Your task to perform on an android device: Open settings on Google Maps Image 0: 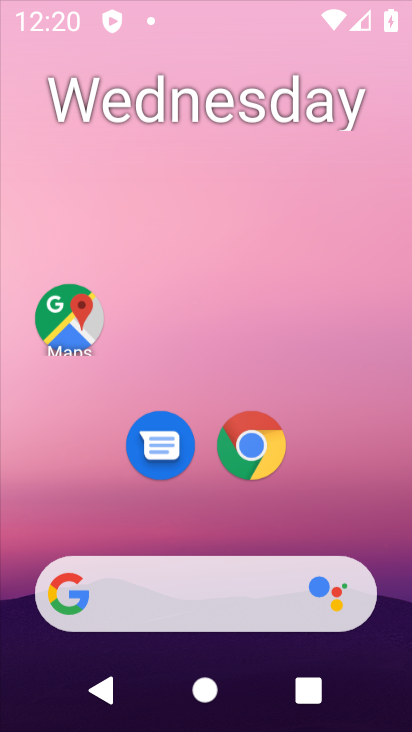
Step 0: click (268, 445)
Your task to perform on an android device: Open settings on Google Maps Image 1: 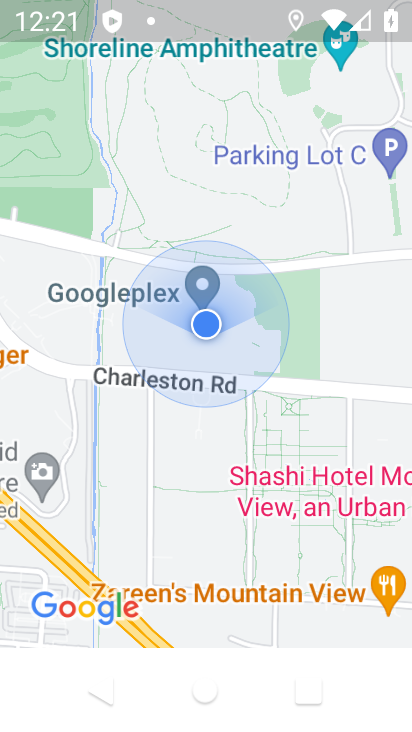
Step 1: drag from (174, 183) to (231, 308)
Your task to perform on an android device: Open settings on Google Maps Image 2: 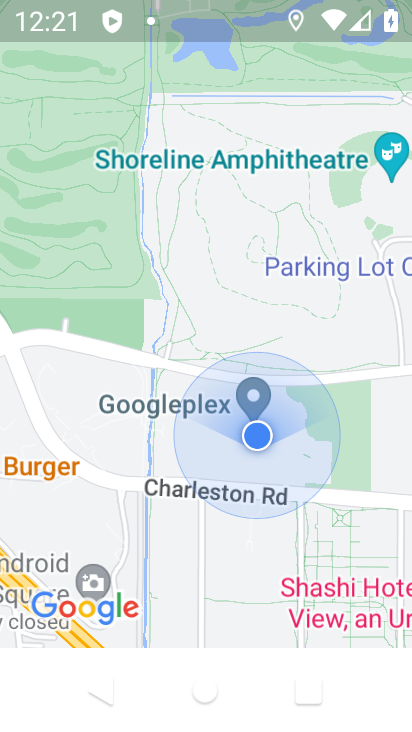
Step 2: click (54, 72)
Your task to perform on an android device: Open settings on Google Maps Image 3: 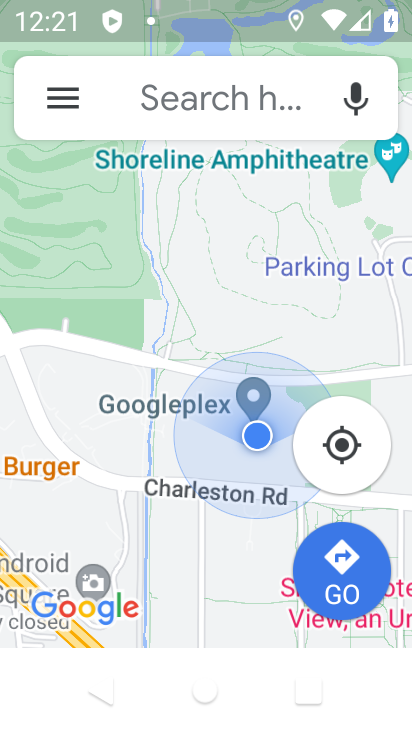
Step 3: click (58, 91)
Your task to perform on an android device: Open settings on Google Maps Image 4: 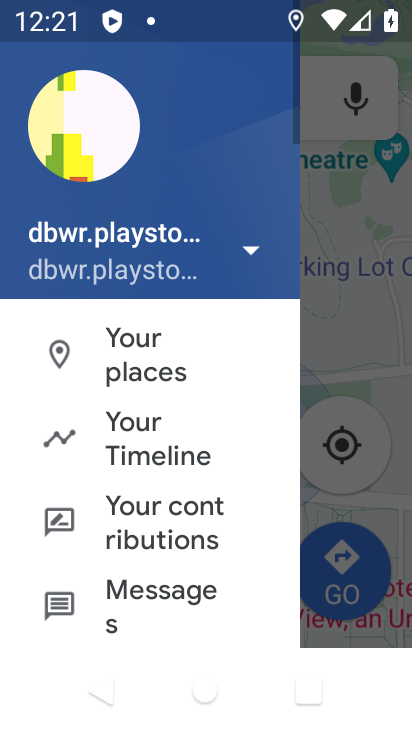
Step 4: drag from (122, 521) to (145, 22)
Your task to perform on an android device: Open settings on Google Maps Image 5: 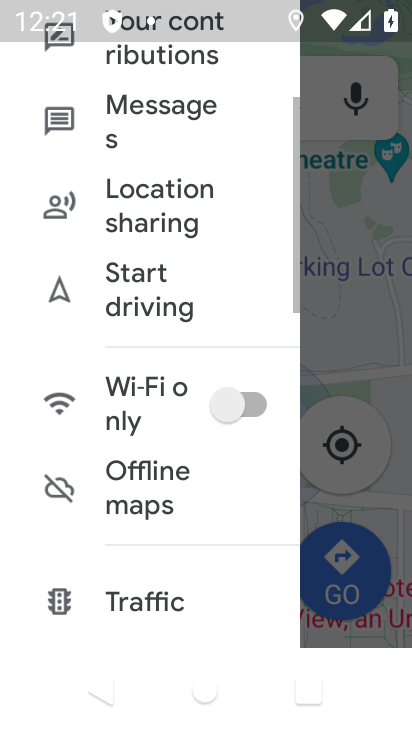
Step 5: drag from (145, 563) to (152, 69)
Your task to perform on an android device: Open settings on Google Maps Image 6: 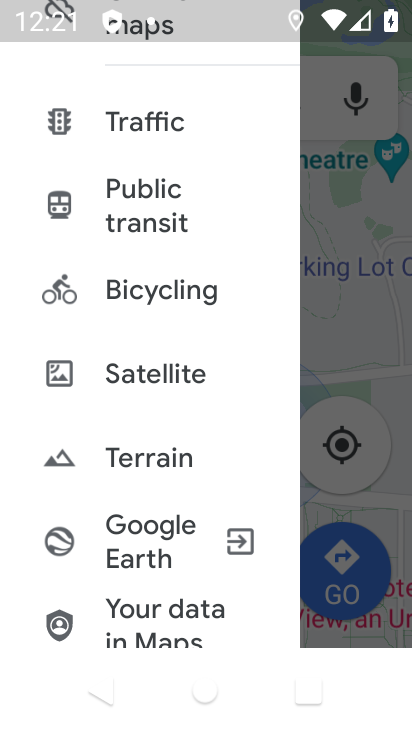
Step 6: drag from (152, 476) to (156, 13)
Your task to perform on an android device: Open settings on Google Maps Image 7: 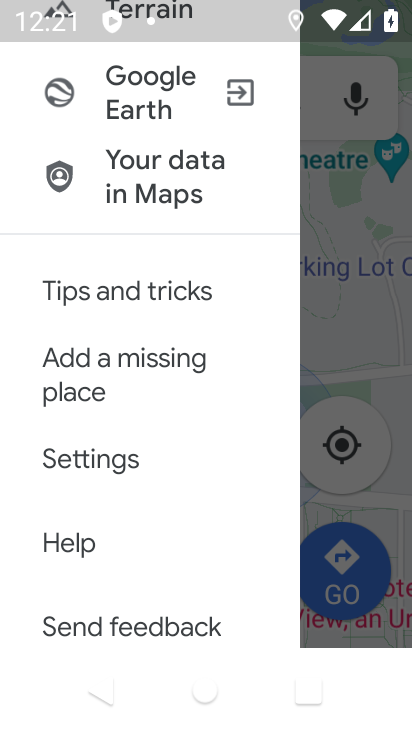
Step 7: click (104, 460)
Your task to perform on an android device: Open settings on Google Maps Image 8: 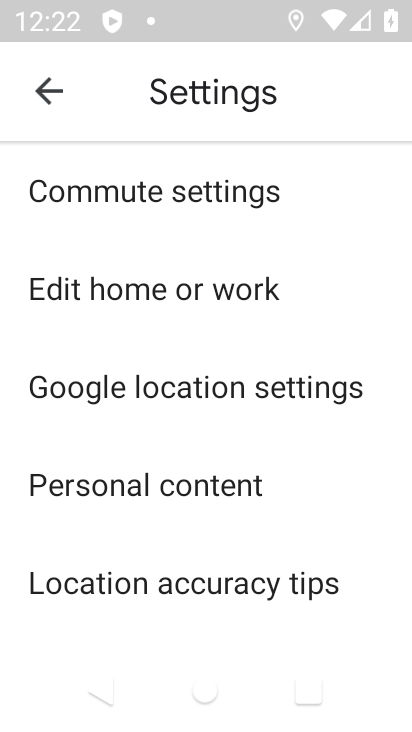
Step 8: task complete